Your task to perform on an android device: toggle data saver in the chrome app Image 0: 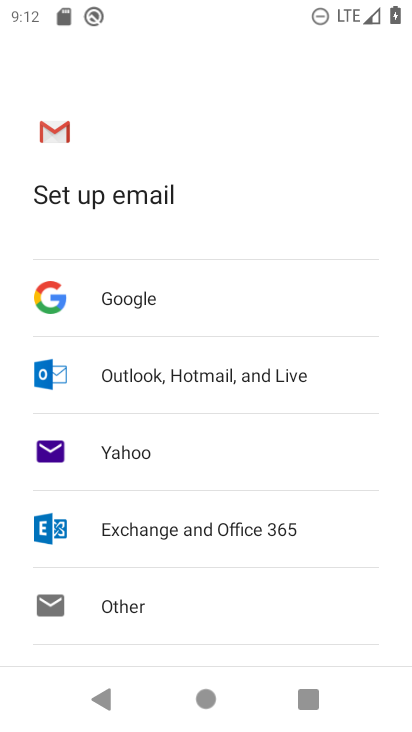
Step 0: press home button
Your task to perform on an android device: toggle data saver in the chrome app Image 1: 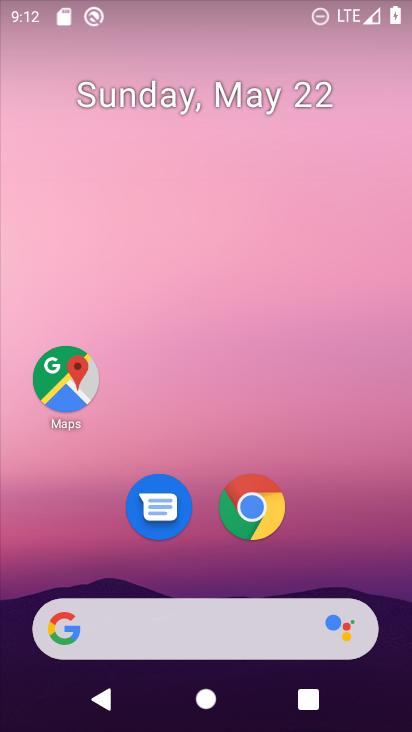
Step 1: click (239, 512)
Your task to perform on an android device: toggle data saver in the chrome app Image 2: 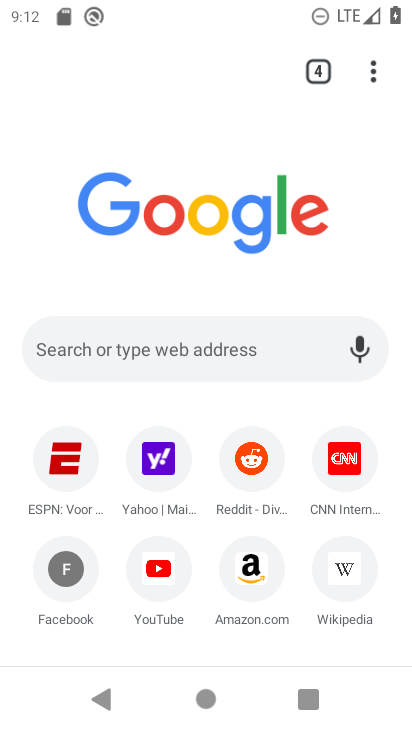
Step 2: click (380, 68)
Your task to perform on an android device: toggle data saver in the chrome app Image 3: 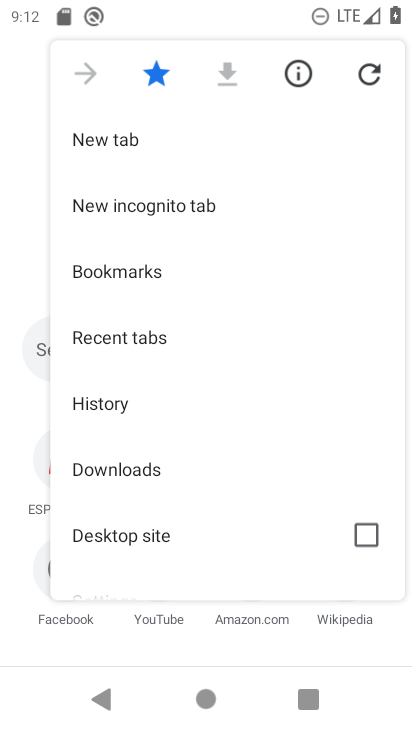
Step 3: drag from (218, 521) to (206, 5)
Your task to perform on an android device: toggle data saver in the chrome app Image 4: 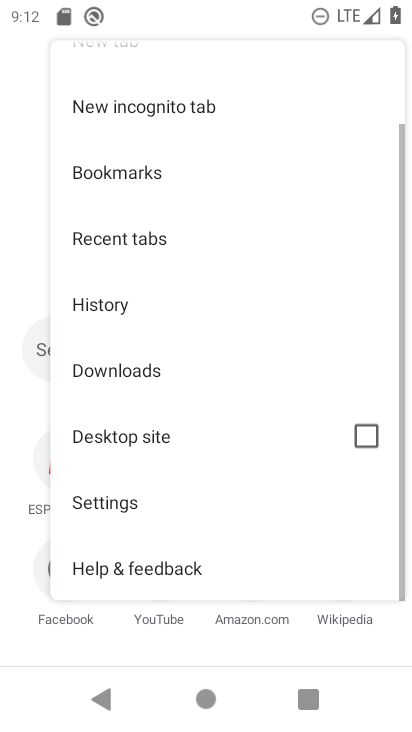
Step 4: click (158, 493)
Your task to perform on an android device: toggle data saver in the chrome app Image 5: 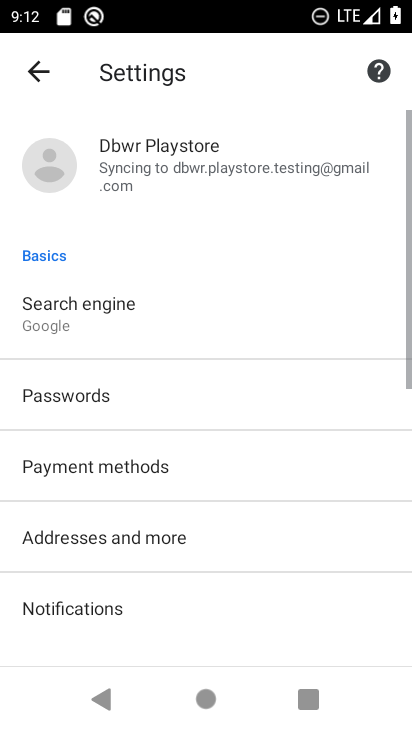
Step 5: drag from (283, 515) to (308, 15)
Your task to perform on an android device: toggle data saver in the chrome app Image 6: 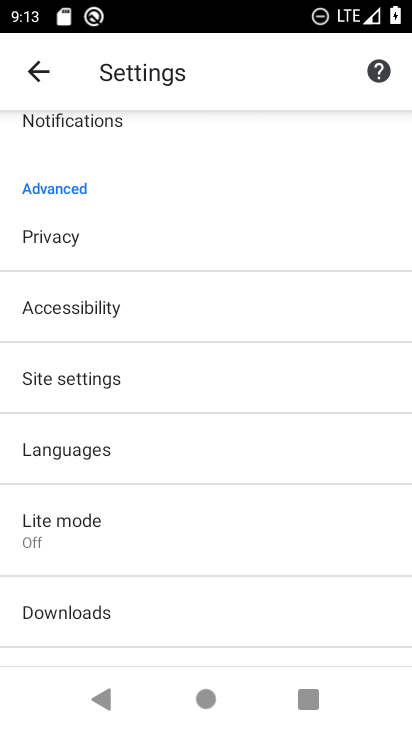
Step 6: click (133, 522)
Your task to perform on an android device: toggle data saver in the chrome app Image 7: 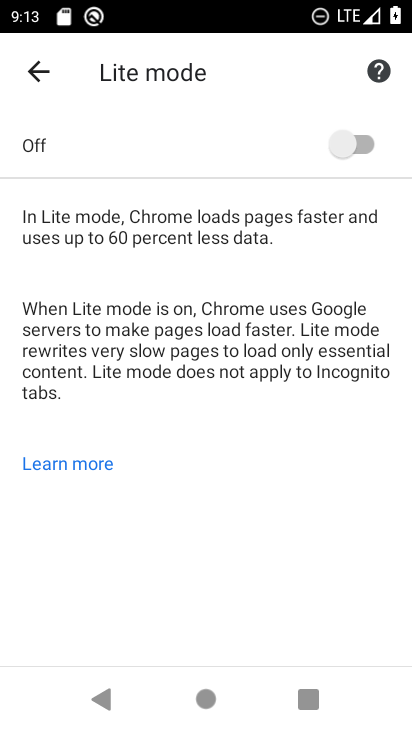
Step 7: click (355, 141)
Your task to perform on an android device: toggle data saver in the chrome app Image 8: 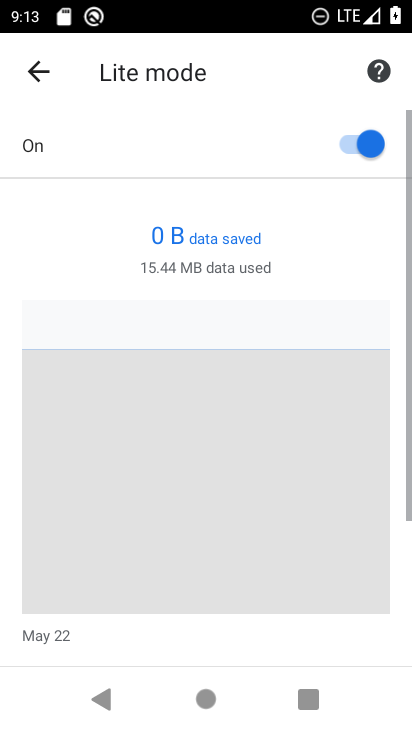
Step 8: task complete